Your task to perform on an android device: remove spam from my inbox in the gmail app Image 0: 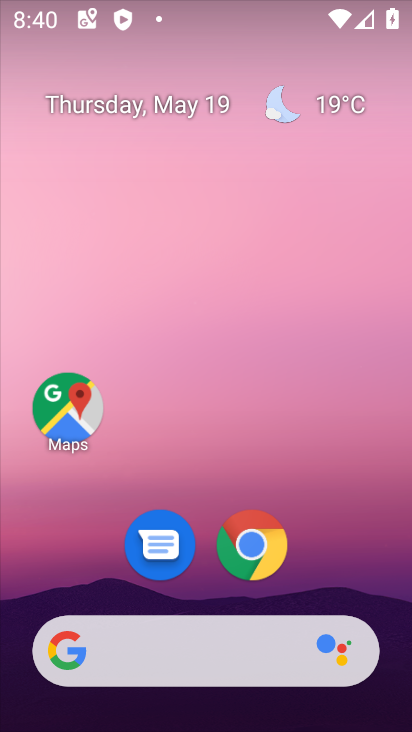
Step 0: drag from (365, 554) to (384, 186)
Your task to perform on an android device: remove spam from my inbox in the gmail app Image 1: 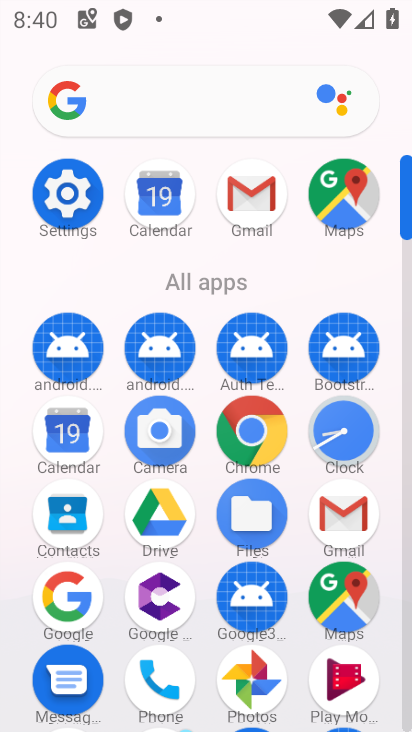
Step 1: click (78, 208)
Your task to perform on an android device: remove spam from my inbox in the gmail app Image 2: 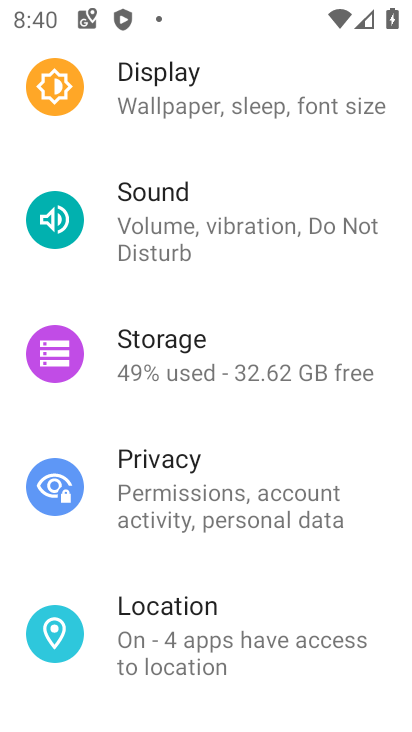
Step 2: press home button
Your task to perform on an android device: remove spam from my inbox in the gmail app Image 3: 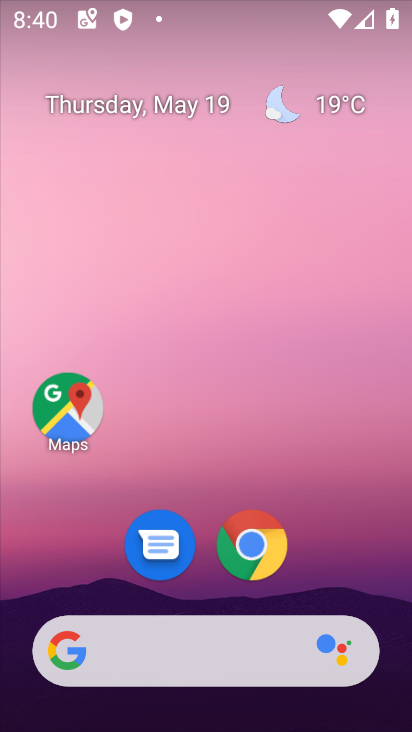
Step 3: drag from (379, 577) to (301, 31)
Your task to perform on an android device: remove spam from my inbox in the gmail app Image 4: 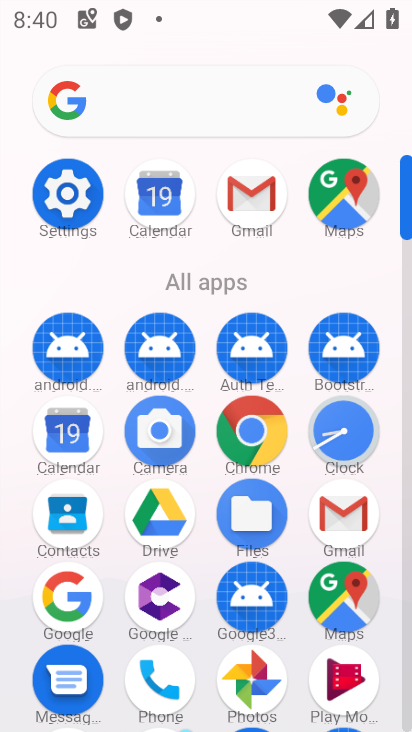
Step 4: click (250, 185)
Your task to perform on an android device: remove spam from my inbox in the gmail app Image 5: 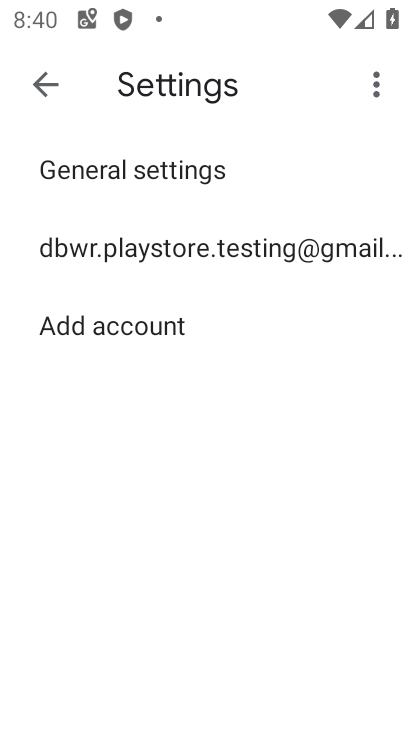
Step 5: click (44, 103)
Your task to perform on an android device: remove spam from my inbox in the gmail app Image 6: 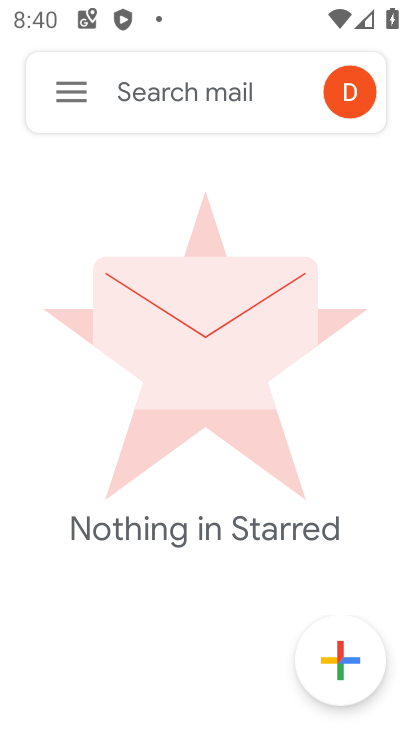
Step 6: click (65, 96)
Your task to perform on an android device: remove spam from my inbox in the gmail app Image 7: 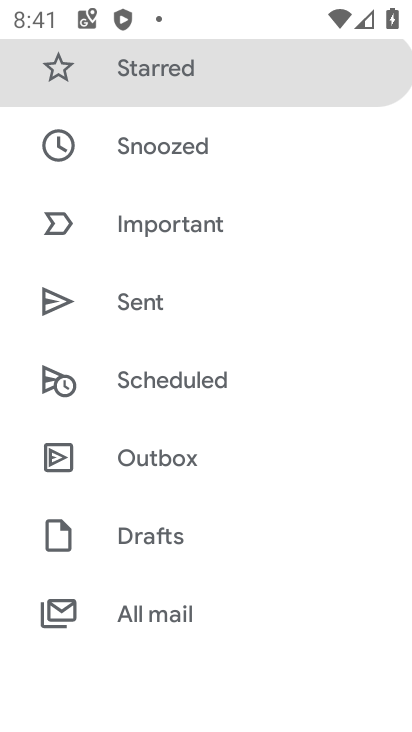
Step 7: click (165, 612)
Your task to perform on an android device: remove spam from my inbox in the gmail app Image 8: 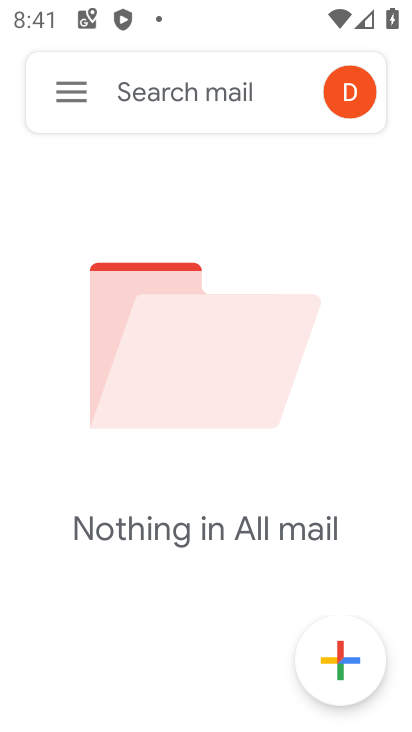
Step 8: task complete